Your task to perform on an android device: all mails in gmail Image 0: 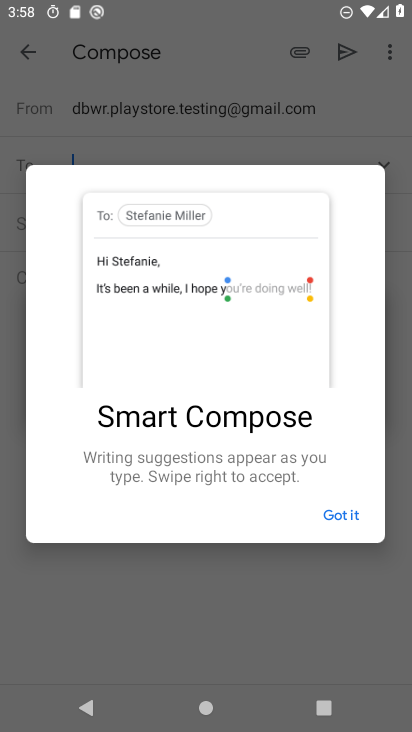
Step 0: press home button
Your task to perform on an android device: all mails in gmail Image 1: 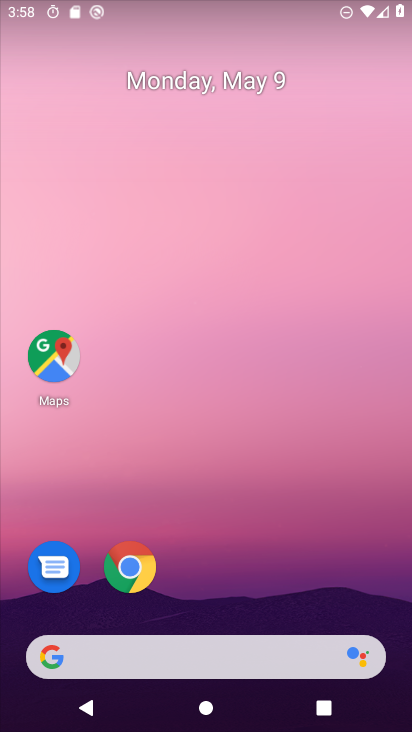
Step 1: drag from (201, 476) to (203, 9)
Your task to perform on an android device: all mails in gmail Image 2: 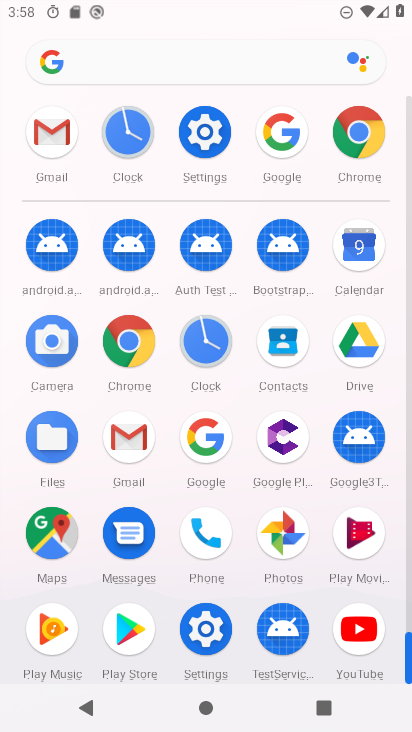
Step 2: click (54, 131)
Your task to perform on an android device: all mails in gmail Image 3: 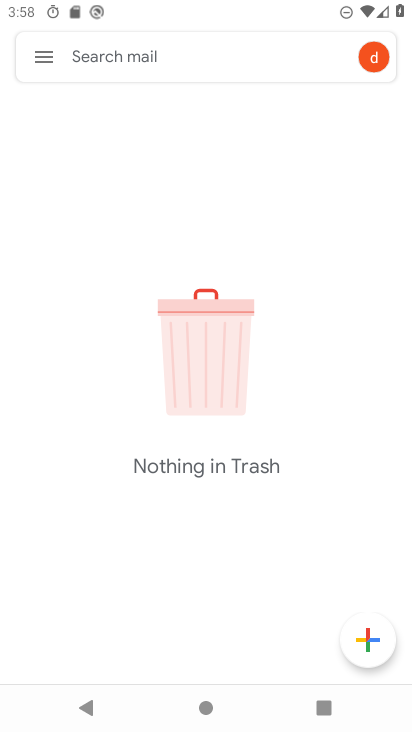
Step 3: click (51, 73)
Your task to perform on an android device: all mails in gmail Image 4: 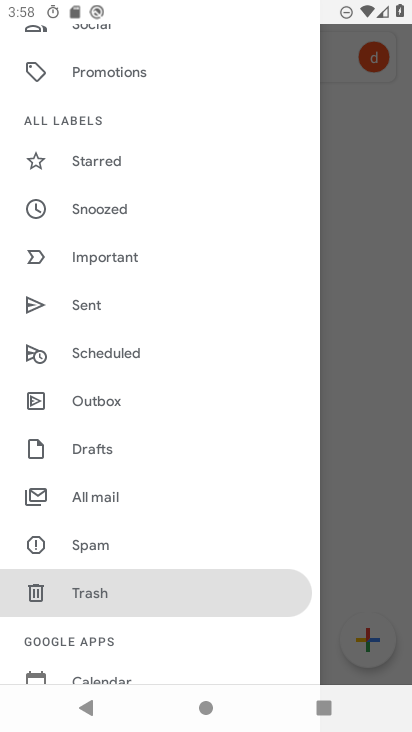
Step 4: click (98, 497)
Your task to perform on an android device: all mails in gmail Image 5: 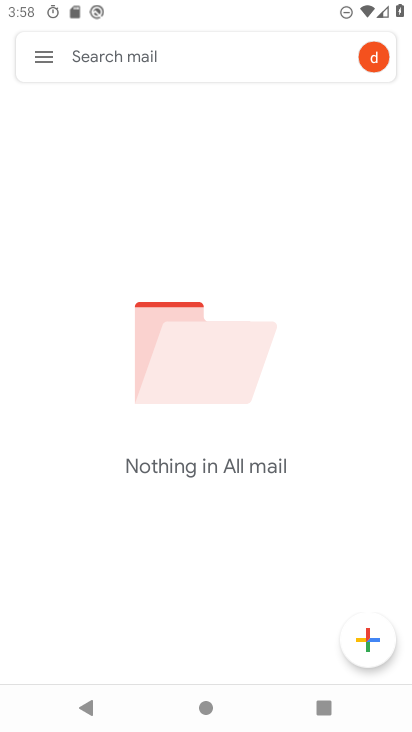
Step 5: task complete